Your task to perform on an android device: Search for the best rated kitchen reno kits on Lowes.com Image 0: 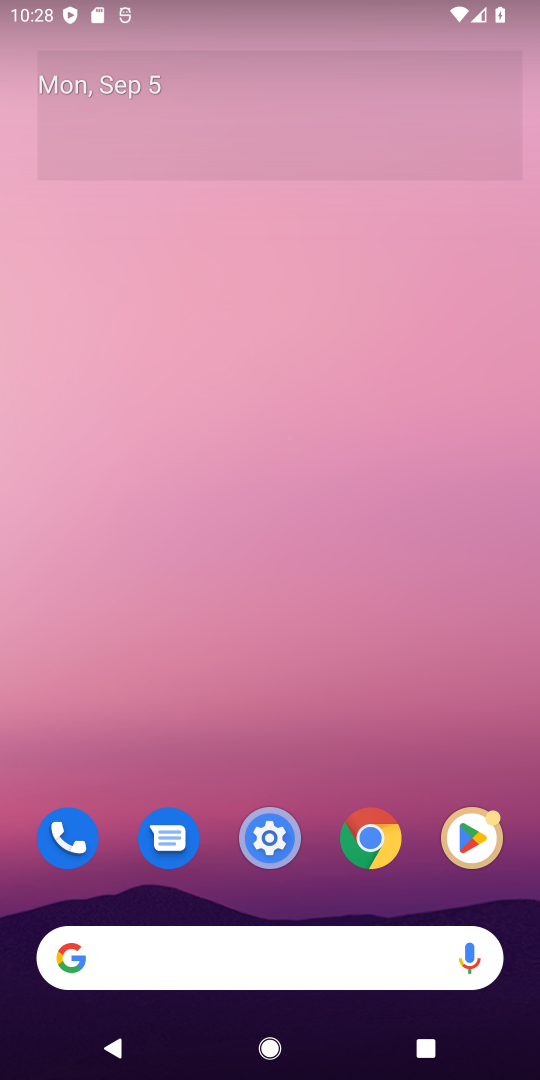
Step 0: click (282, 958)
Your task to perform on an android device: Search for the best rated kitchen reno kits on Lowes.com Image 1: 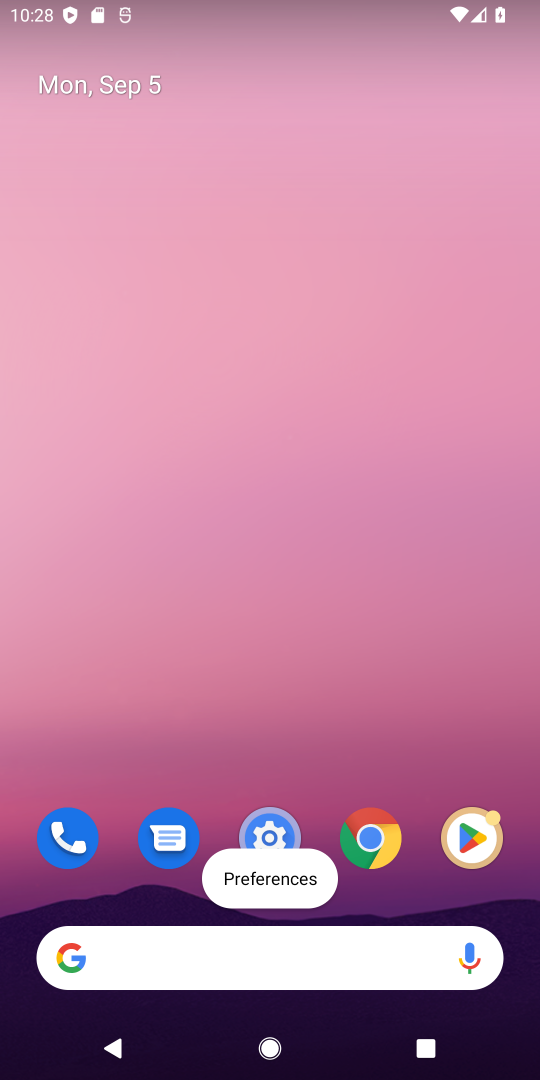
Step 1: click (296, 957)
Your task to perform on an android device: Search for the best rated kitchen reno kits on Lowes.com Image 2: 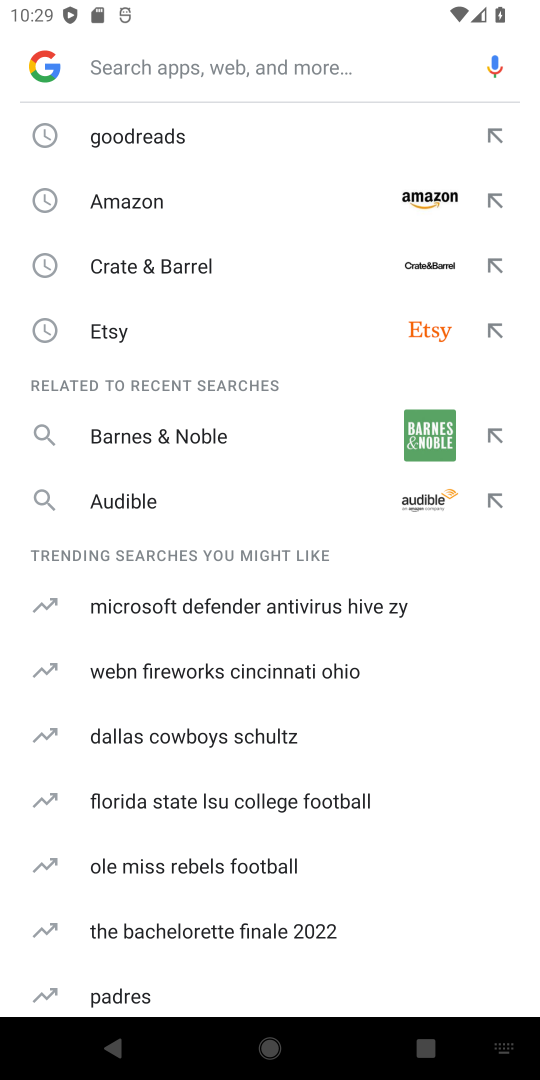
Step 2: type "Lowes.com"
Your task to perform on an android device: Search for the best rated kitchen reno kits on Lowes.com Image 3: 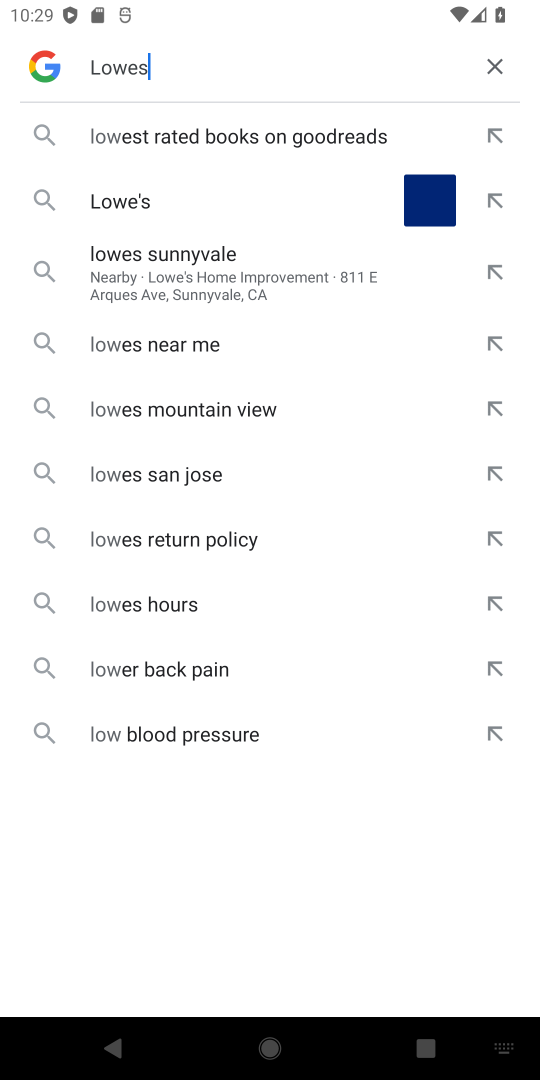
Step 3: type ""
Your task to perform on an android device: Search for the best rated kitchen reno kits on Lowes.com Image 4: 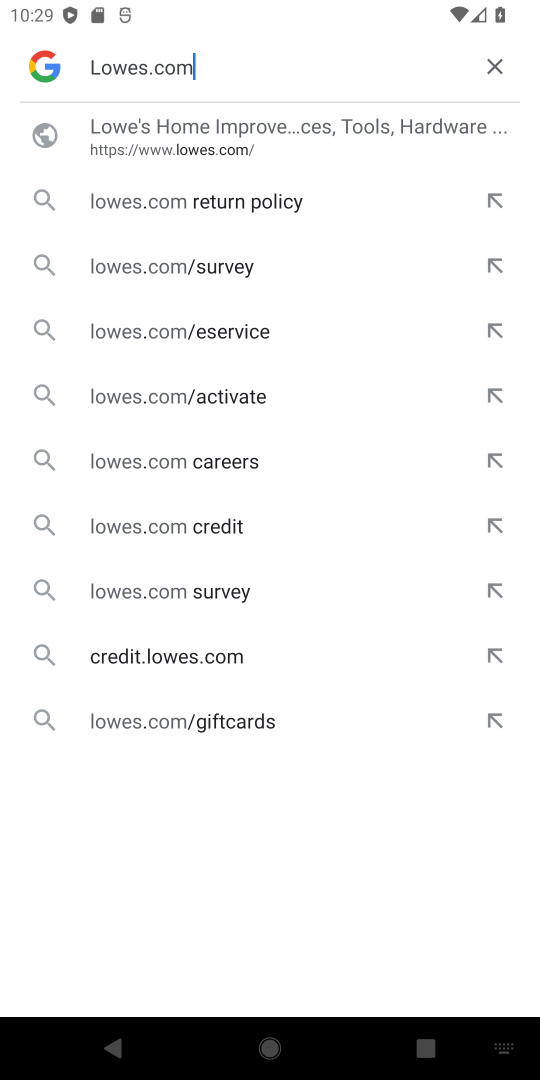
Step 4: click (183, 147)
Your task to perform on an android device: Search for the best rated kitchen reno kits on Lowes.com Image 5: 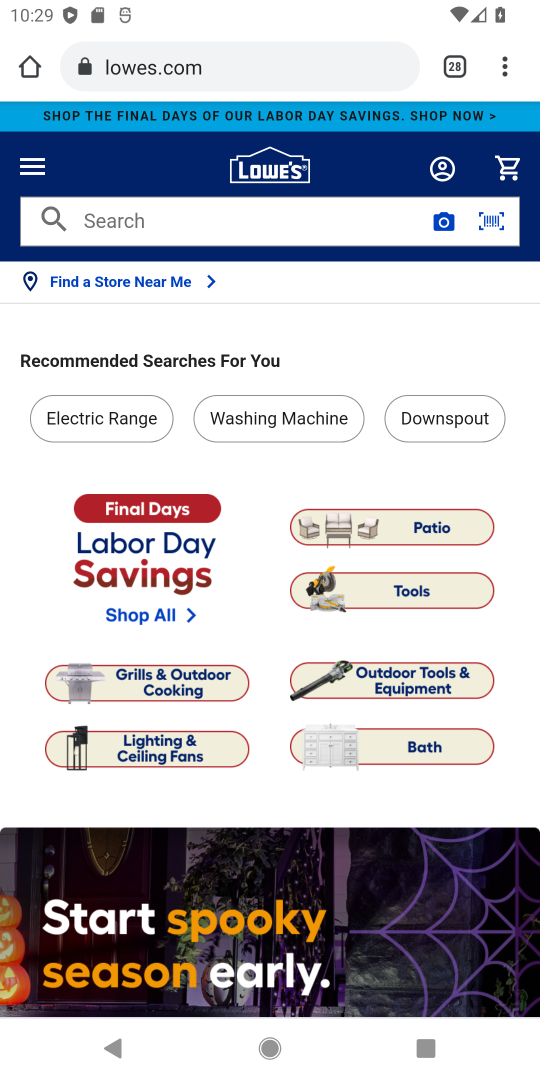
Step 5: type "kitchen reno kits"
Your task to perform on an android device: Search for the best rated kitchen reno kits on Lowes.com Image 6: 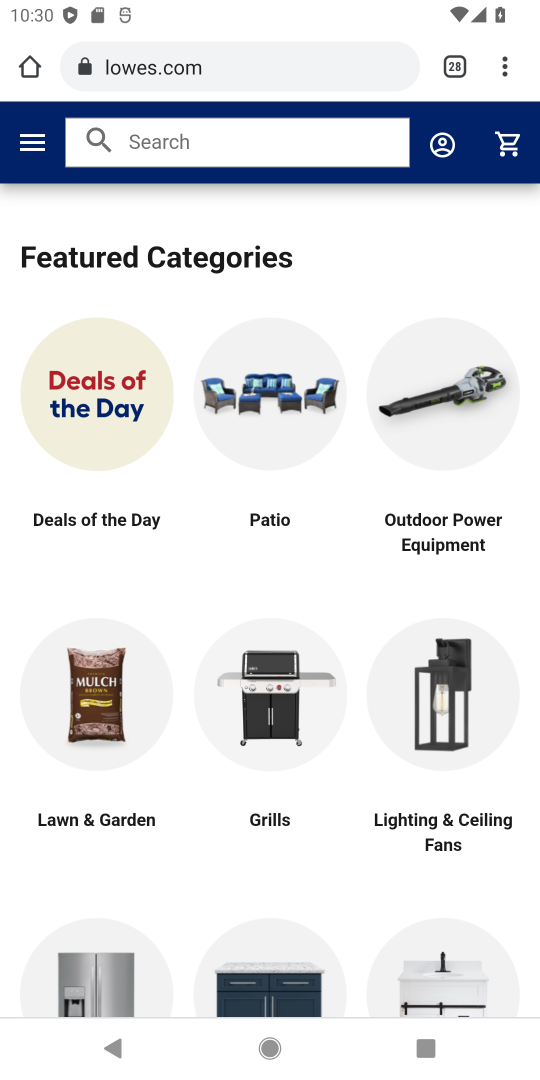
Step 6: click (219, 148)
Your task to perform on an android device: Search for the best rated kitchen reno kits on Lowes.com Image 7: 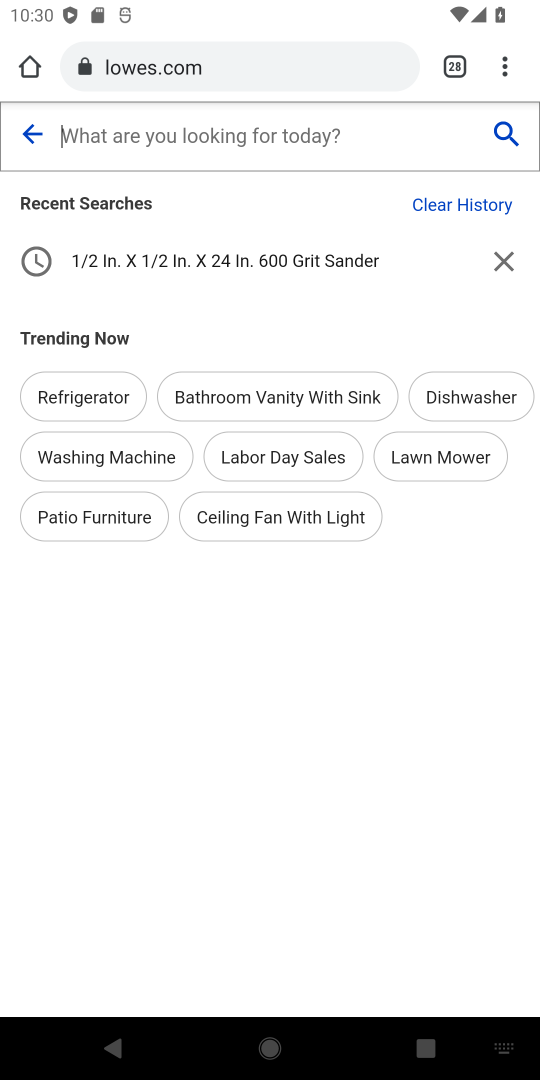
Step 7: type " kitchen reno kits"
Your task to perform on an android device: Search for the best rated kitchen reno kits on Lowes.com Image 8: 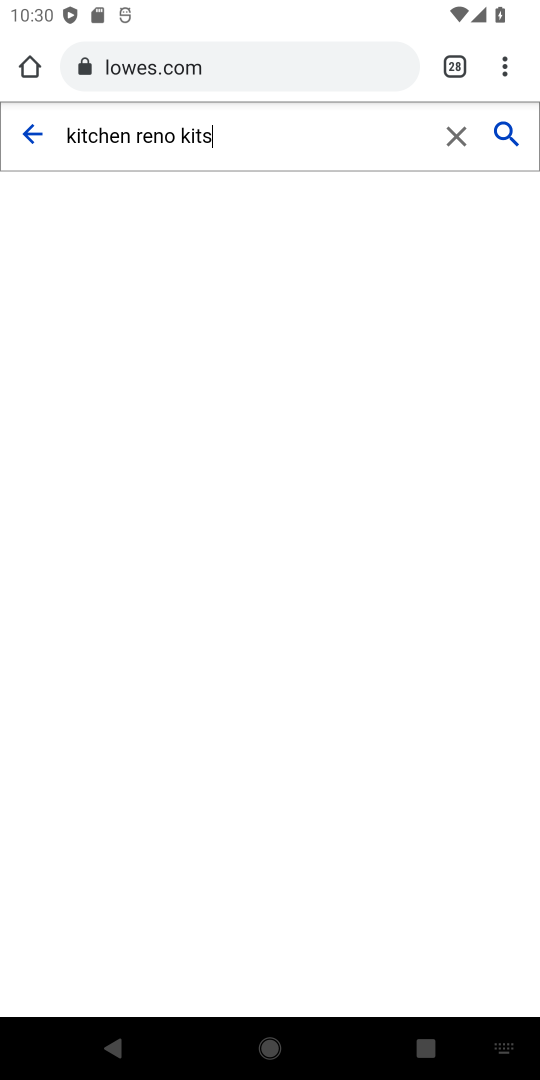
Step 8: click (504, 145)
Your task to perform on an android device: Search for the best rated kitchen reno kits on Lowes.com Image 9: 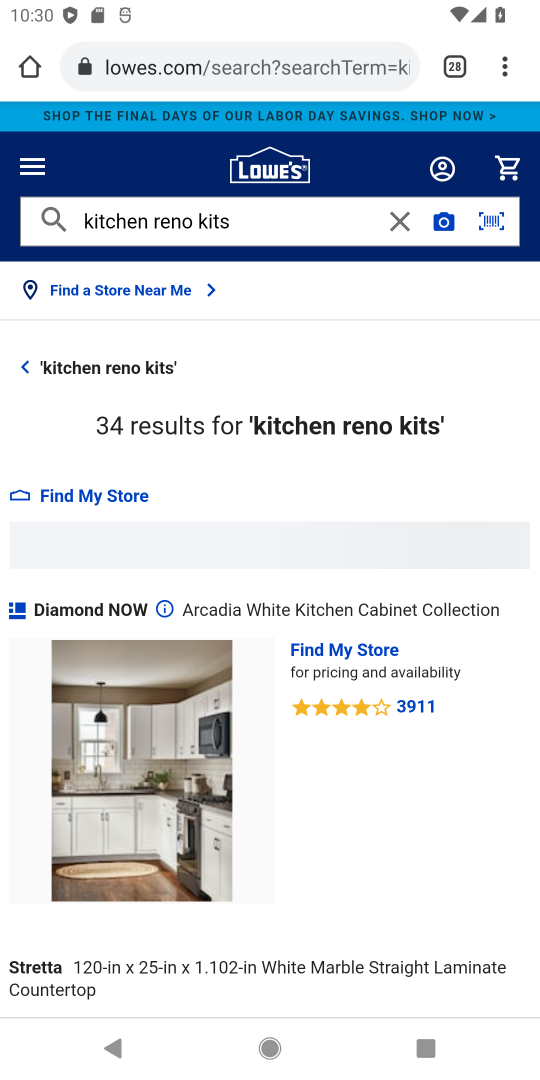
Step 9: task complete